Your task to perform on an android device: What's on my calendar today? Image 0: 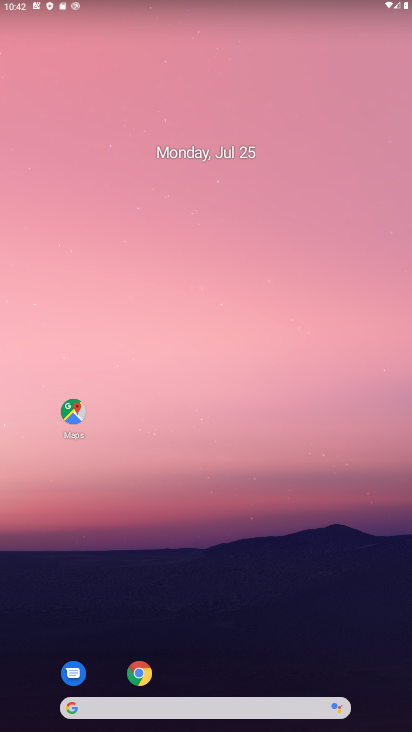
Step 0: drag from (221, 669) to (146, 3)
Your task to perform on an android device: What's on my calendar today? Image 1: 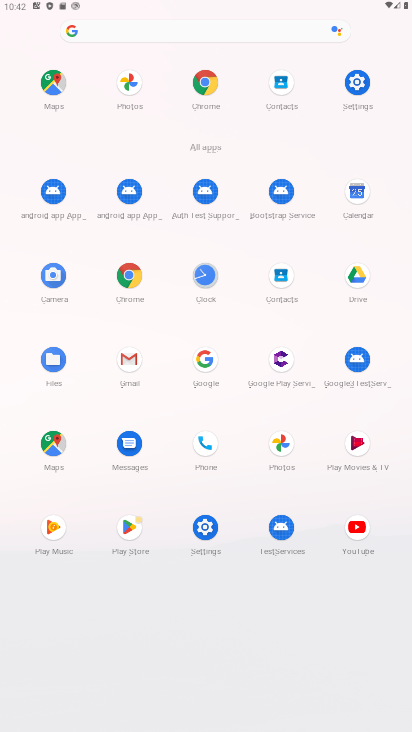
Step 1: click (359, 189)
Your task to perform on an android device: What's on my calendar today? Image 2: 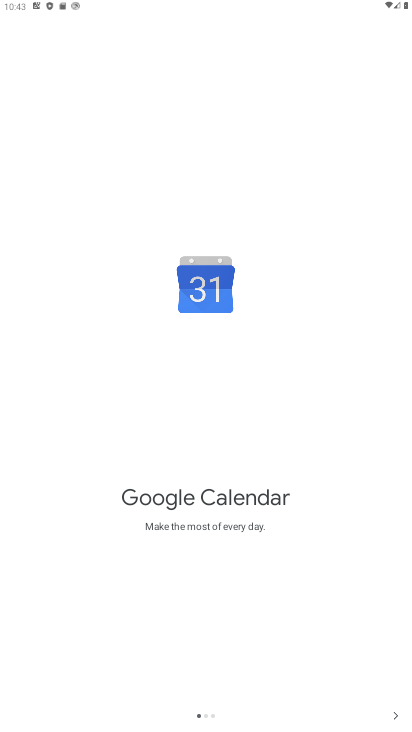
Step 2: click (393, 709)
Your task to perform on an android device: What's on my calendar today? Image 3: 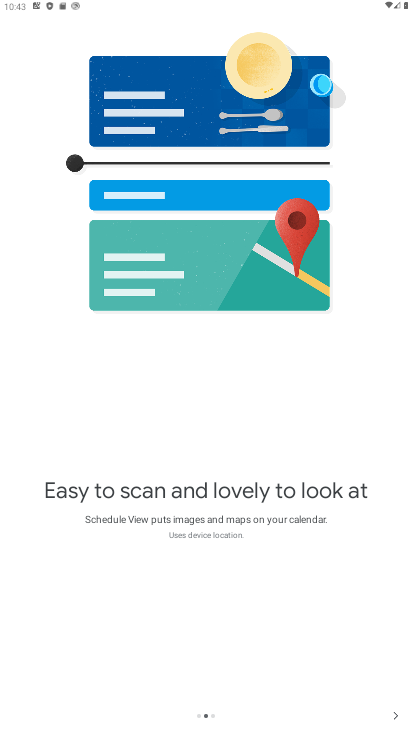
Step 3: click (393, 709)
Your task to perform on an android device: What's on my calendar today? Image 4: 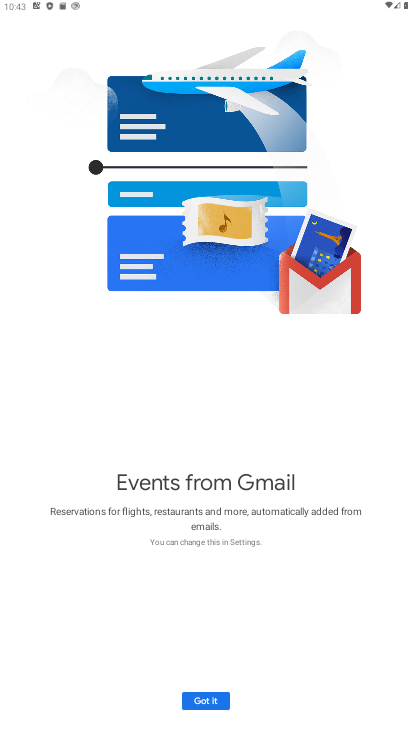
Step 4: click (203, 694)
Your task to perform on an android device: What's on my calendar today? Image 5: 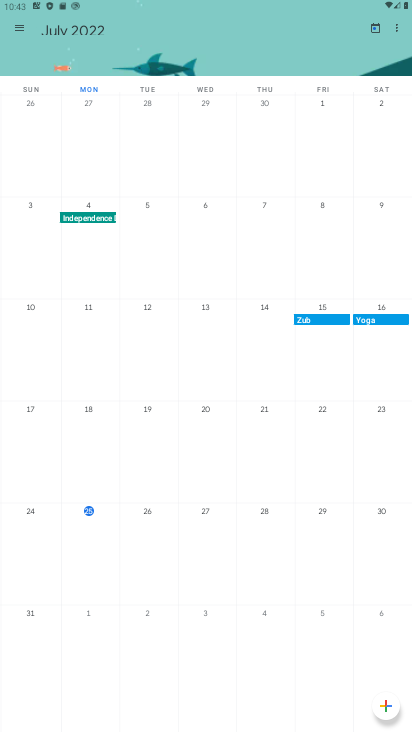
Step 5: click (210, 695)
Your task to perform on an android device: What's on my calendar today? Image 6: 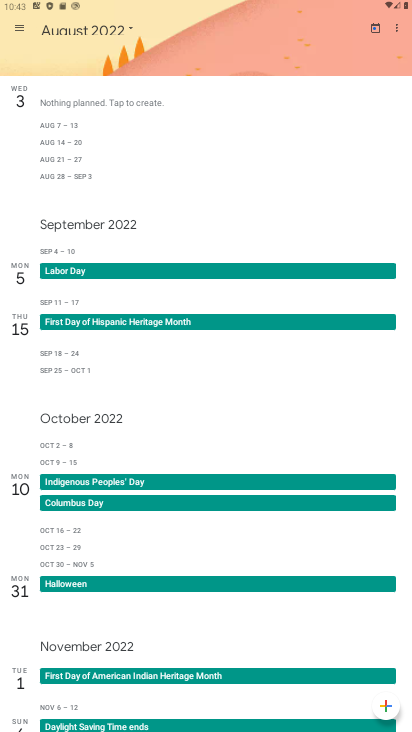
Step 6: click (17, 26)
Your task to perform on an android device: What's on my calendar today? Image 7: 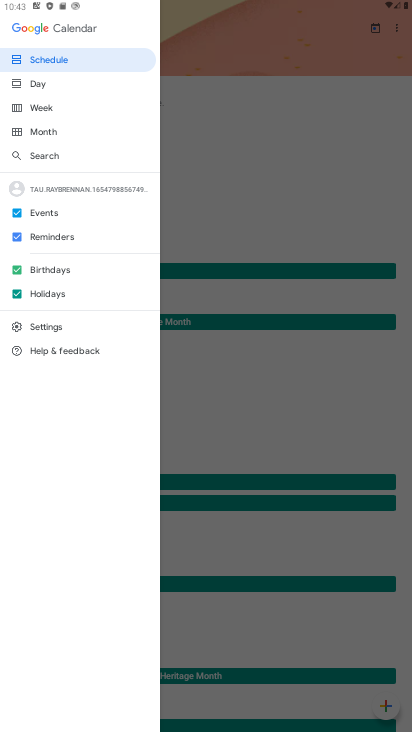
Step 7: click (36, 83)
Your task to perform on an android device: What's on my calendar today? Image 8: 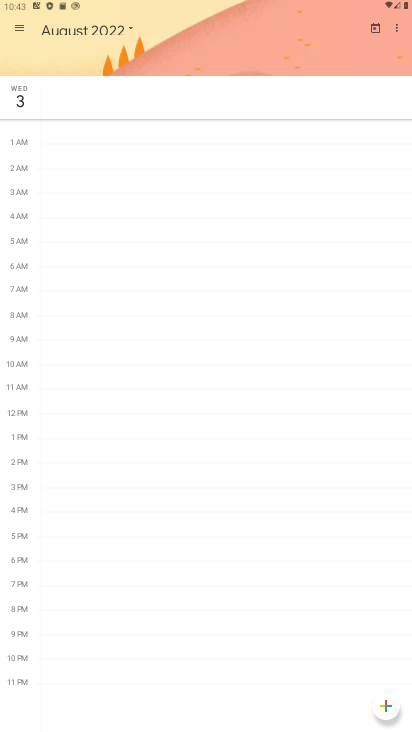
Step 8: click (115, 34)
Your task to perform on an android device: What's on my calendar today? Image 9: 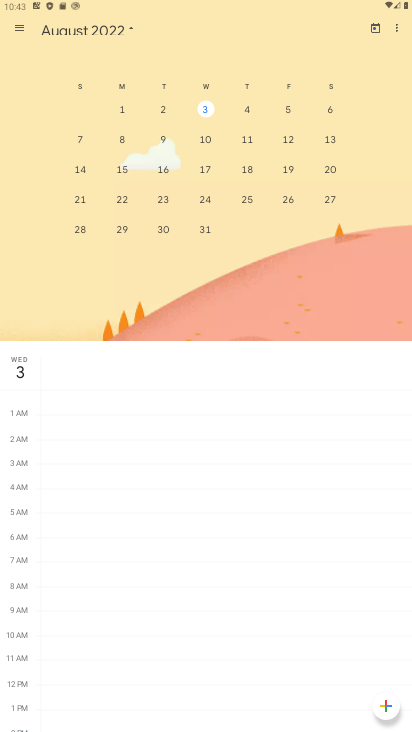
Step 9: drag from (59, 146) to (410, 161)
Your task to perform on an android device: What's on my calendar today? Image 10: 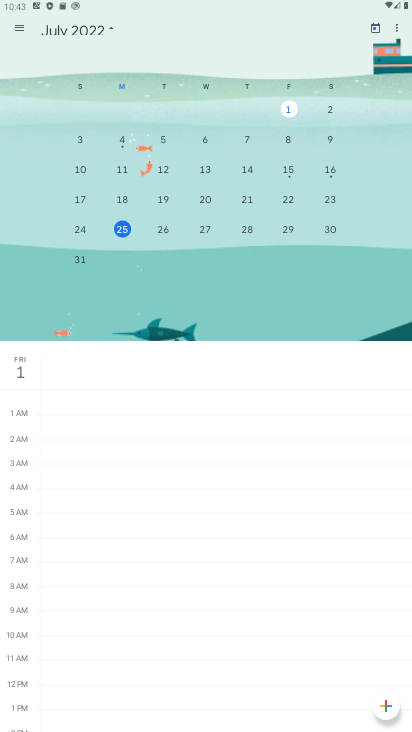
Step 10: click (120, 229)
Your task to perform on an android device: What's on my calendar today? Image 11: 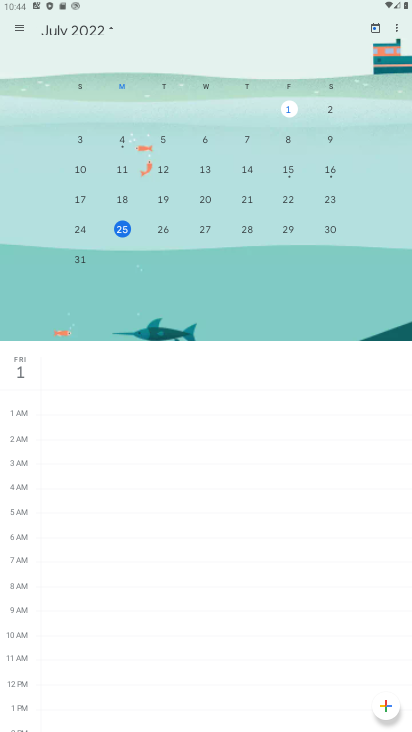
Step 11: click (122, 219)
Your task to perform on an android device: What's on my calendar today? Image 12: 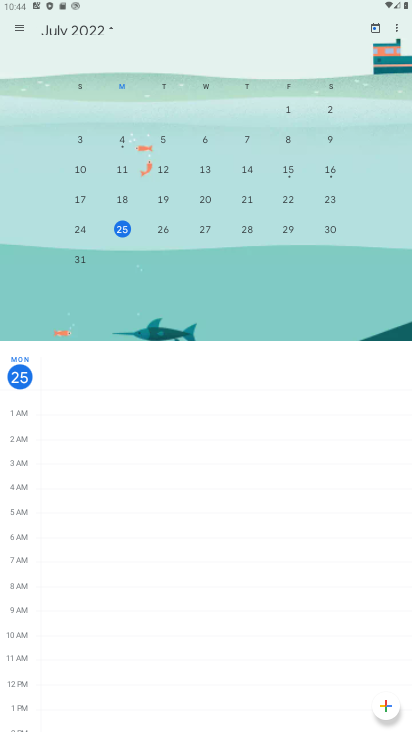
Step 12: click (109, 27)
Your task to perform on an android device: What's on my calendar today? Image 13: 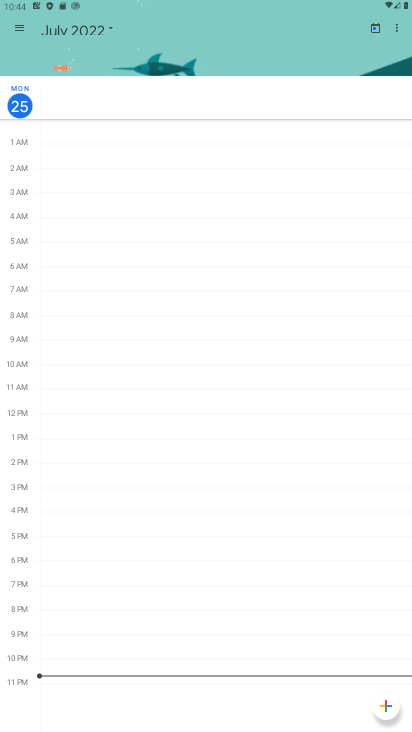
Step 13: task complete